Your task to perform on an android device: refresh tabs in the chrome app Image 0: 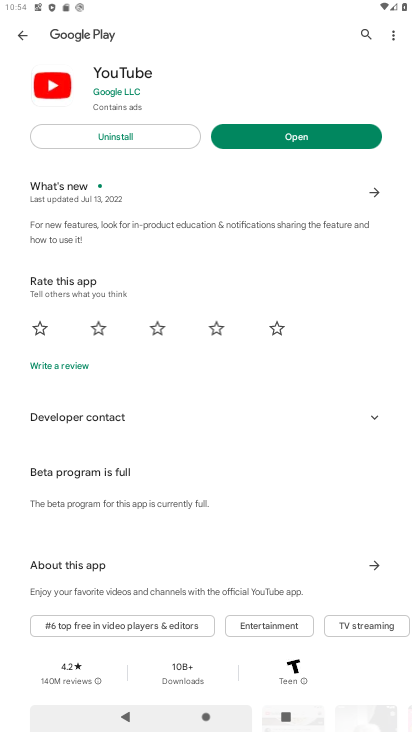
Step 0: press home button
Your task to perform on an android device: refresh tabs in the chrome app Image 1: 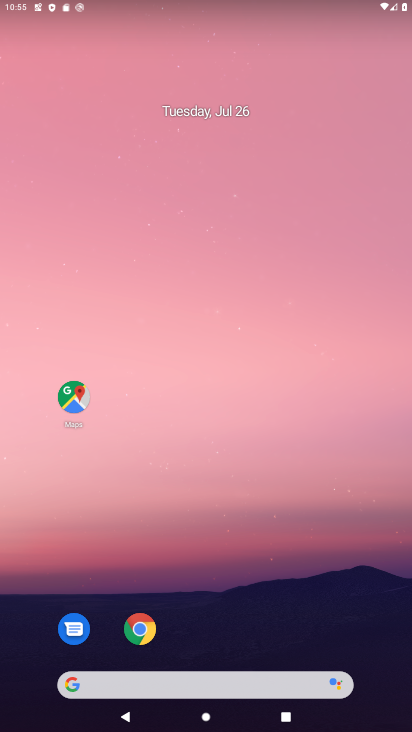
Step 1: click (143, 616)
Your task to perform on an android device: refresh tabs in the chrome app Image 2: 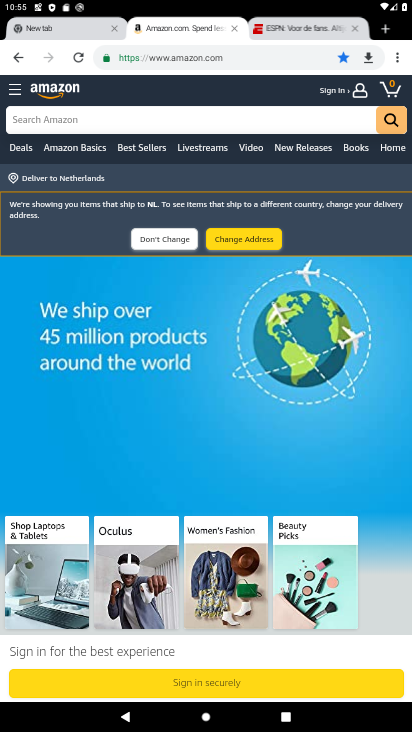
Step 2: click (73, 63)
Your task to perform on an android device: refresh tabs in the chrome app Image 3: 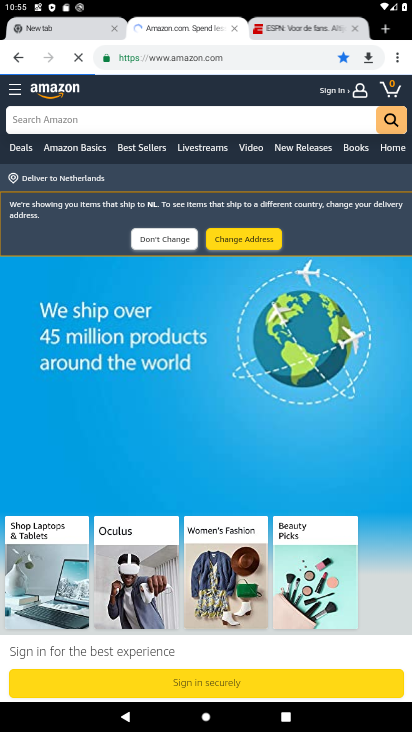
Step 3: task complete